Your task to perform on an android device: Search for bose soundsport free on newegg, select the first entry, and add it to the cart. Image 0: 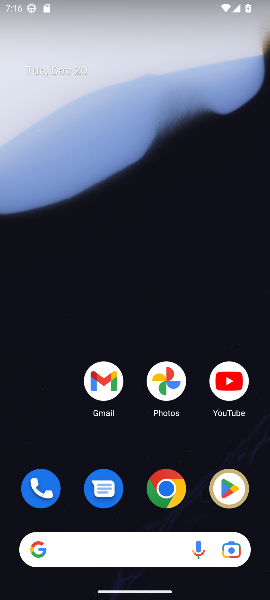
Step 0: press home button
Your task to perform on an android device: Search for bose soundsport free on newegg, select the first entry, and add it to the cart. Image 1: 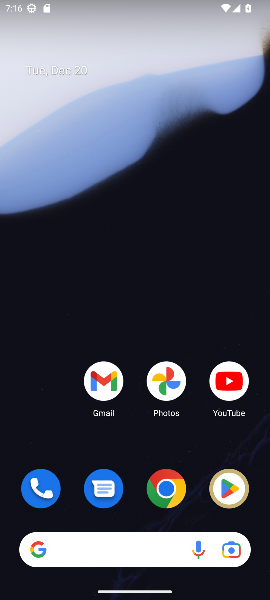
Step 1: drag from (53, 449) to (61, 68)
Your task to perform on an android device: Search for bose soundsport free on newegg, select the first entry, and add it to the cart. Image 2: 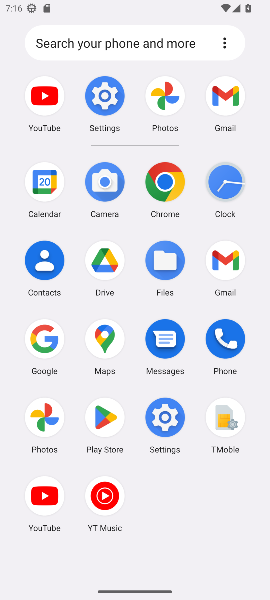
Step 2: click (35, 342)
Your task to perform on an android device: Search for bose soundsport free on newegg, select the first entry, and add it to the cart. Image 3: 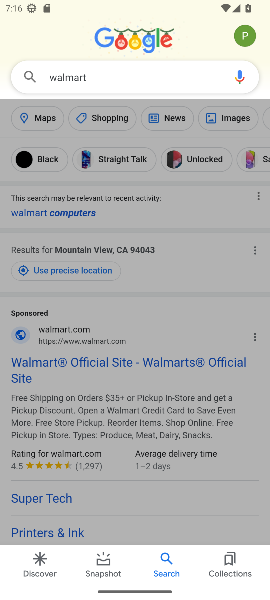
Step 3: click (115, 73)
Your task to perform on an android device: Search for bose soundsport free on newegg, select the first entry, and add it to the cart. Image 4: 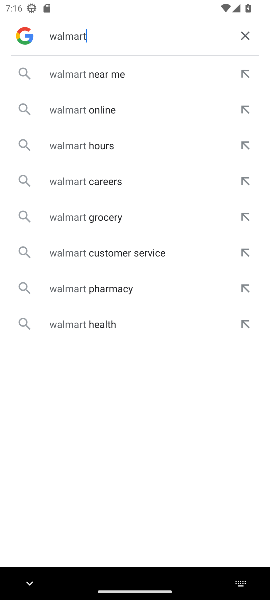
Step 4: click (246, 33)
Your task to perform on an android device: Search for bose soundsport free on newegg, select the first entry, and add it to the cart. Image 5: 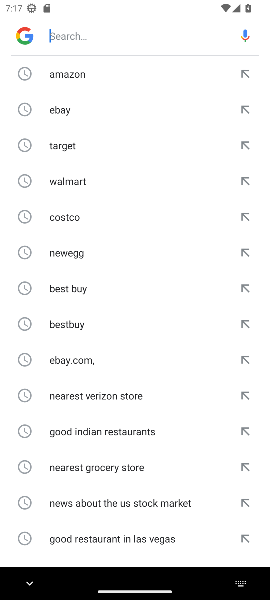
Step 5: press enter
Your task to perform on an android device: Search for bose soundsport free on newegg, select the first entry, and add it to the cart. Image 6: 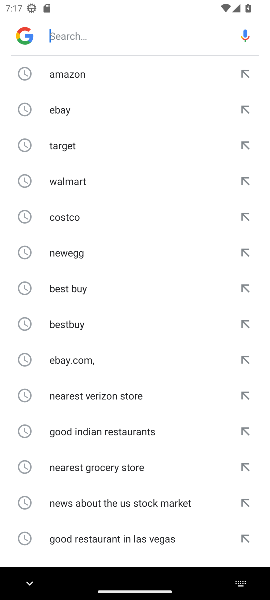
Step 6: type "newegg"
Your task to perform on an android device: Search for bose soundsport free on newegg, select the first entry, and add it to the cart. Image 7: 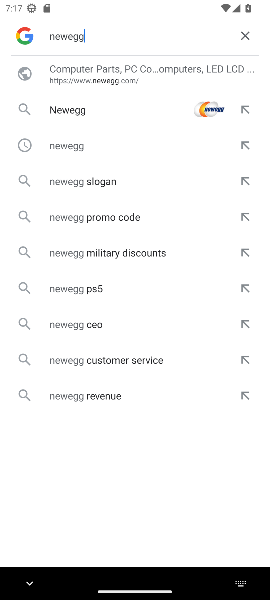
Step 7: press enter
Your task to perform on an android device: Search for bose soundsport free on newegg, select the first entry, and add it to the cart. Image 8: 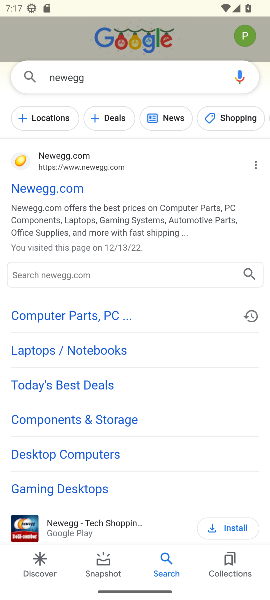
Step 8: click (45, 188)
Your task to perform on an android device: Search for bose soundsport free on newegg, select the first entry, and add it to the cart. Image 9: 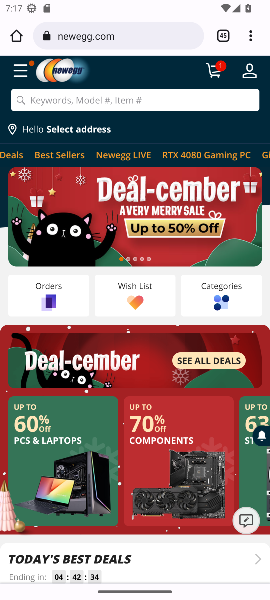
Step 9: click (40, 94)
Your task to perform on an android device: Search for bose soundsport free on newegg, select the first entry, and add it to the cart. Image 10: 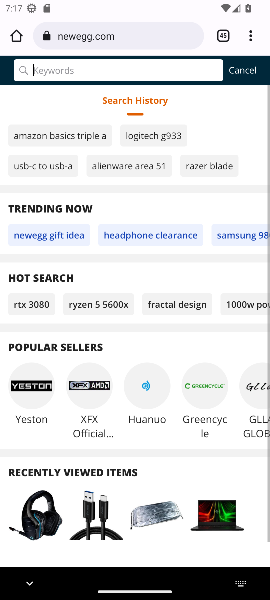
Step 10: type "bose soundsport free"
Your task to perform on an android device: Search for bose soundsport free on newegg, select the first entry, and add it to the cart. Image 11: 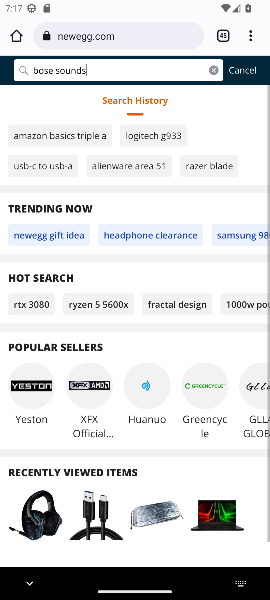
Step 11: press enter
Your task to perform on an android device: Search for bose soundsport free on newegg, select the first entry, and add it to the cart. Image 12: 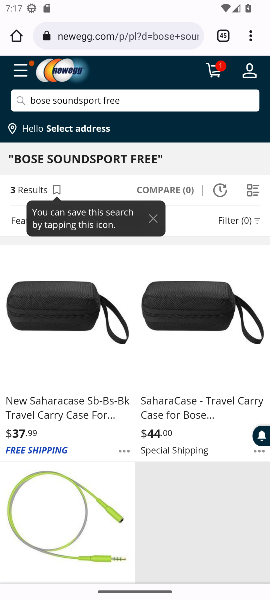
Step 12: task complete